Your task to perform on an android device: Open Wikipedia Image 0: 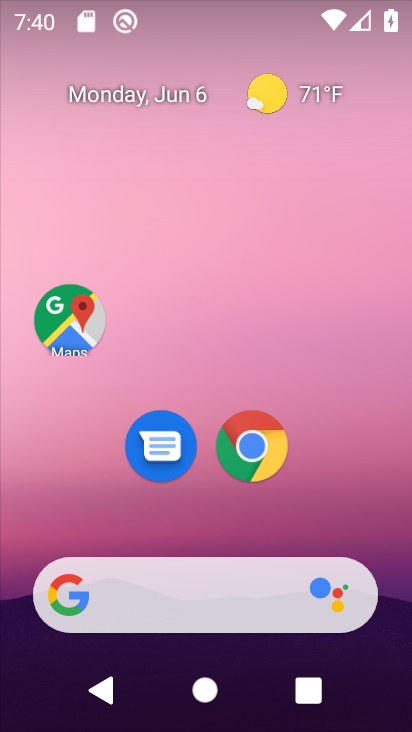
Step 0: click (253, 458)
Your task to perform on an android device: Open Wikipedia Image 1: 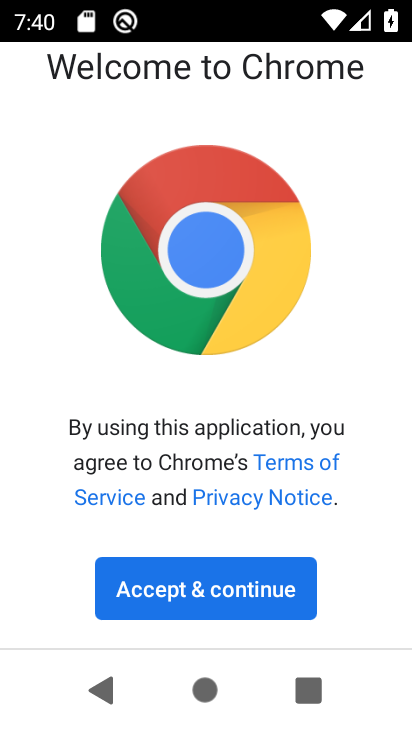
Step 1: click (244, 592)
Your task to perform on an android device: Open Wikipedia Image 2: 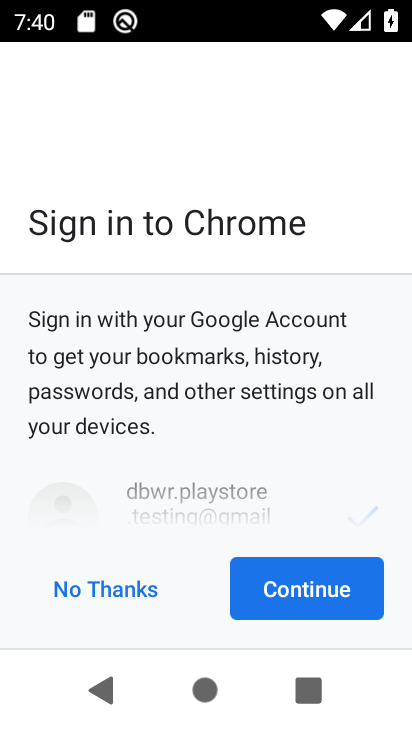
Step 2: click (293, 596)
Your task to perform on an android device: Open Wikipedia Image 3: 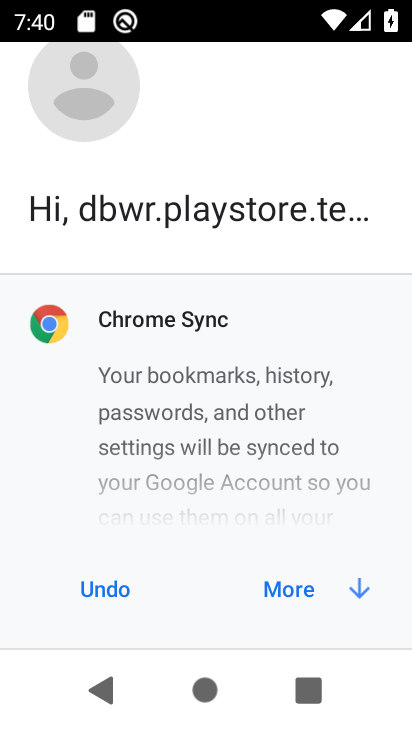
Step 3: click (293, 596)
Your task to perform on an android device: Open Wikipedia Image 4: 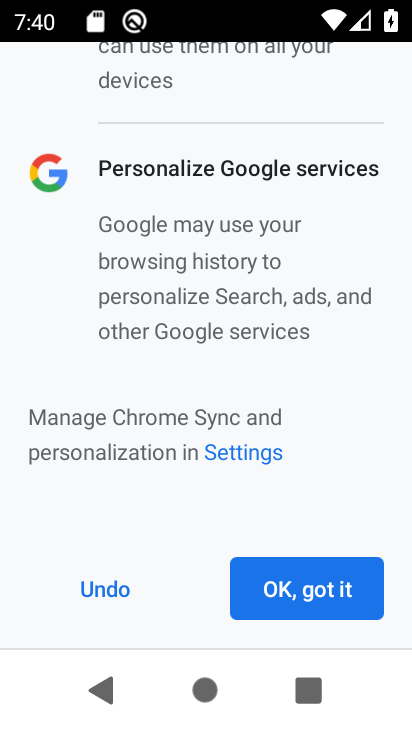
Step 4: click (293, 596)
Your task to perform on an android device: Open Wikipedia Image 5: 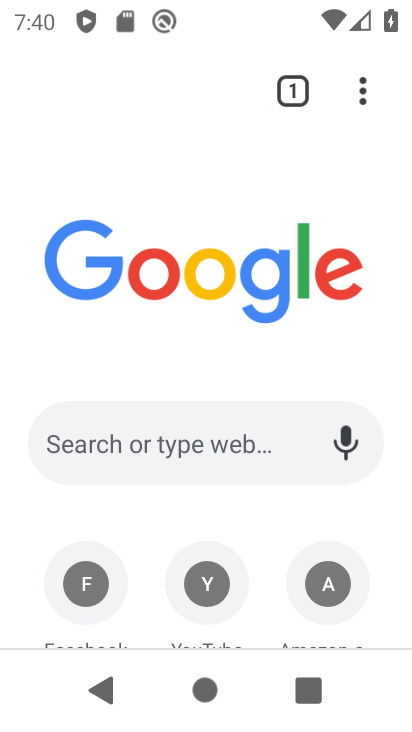
Step 5: drag from (266, 508) to (266, 263)
Your task to perform on an android device: Open Wikipedia Image 6: 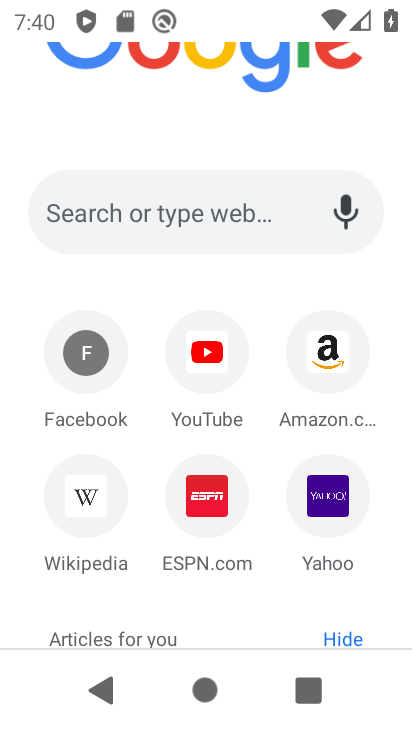
Step 6: click (86, 503)
Your task to perform on an android device: Open Wikipedia Image 7: 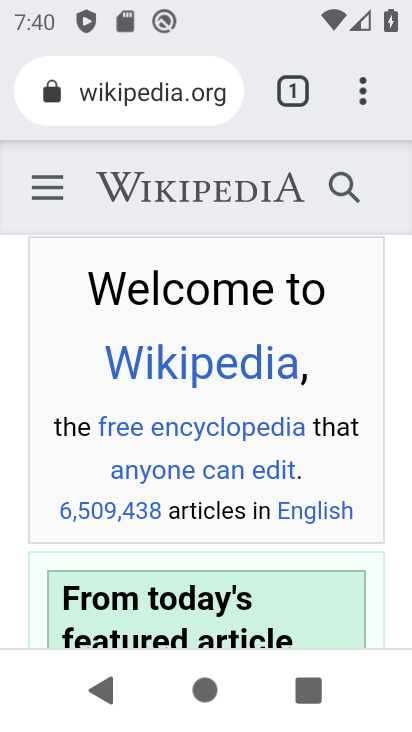
Step 7: task complete